Your task to perform on an android device: Open my contact list Image 0: 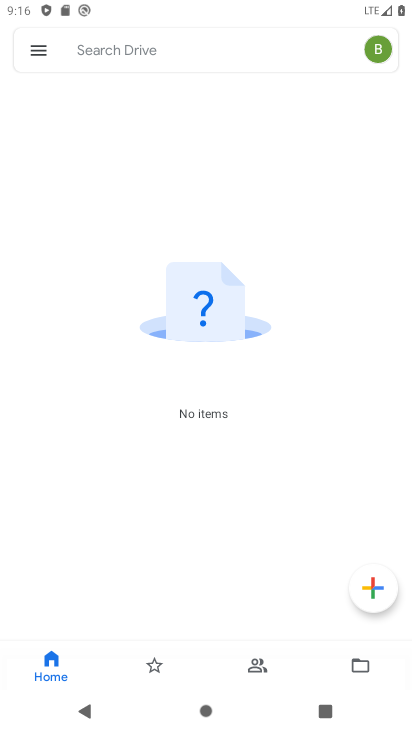
Step 0: click (358, 438)
Your task to perform on an android device: Open my contact list Image 1: 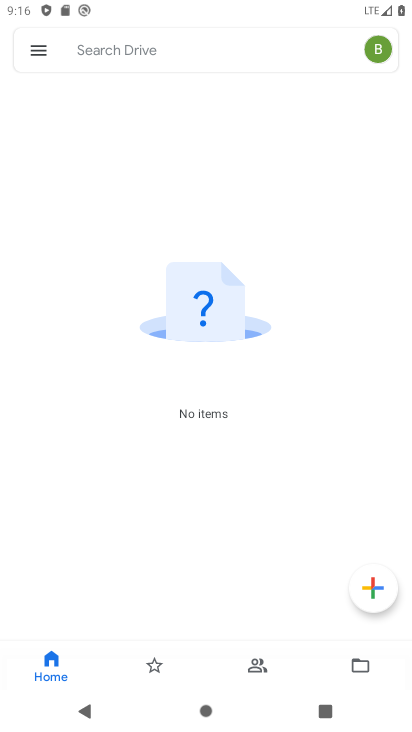
Step 1: press home button
Your task to perform on an android device: Open my contact list Image 2: 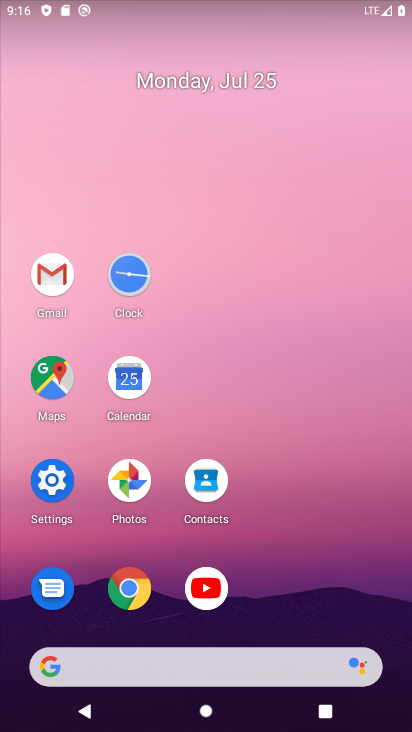
Step 2: click (205, 485)
Your task to perform on an android device: Open my contact list Image 3: 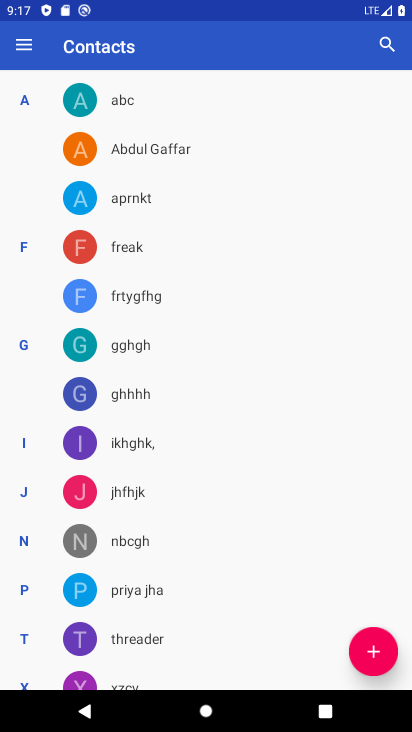
Step 3: task complete